Your task to perform on an android device: Open Google Maps Image 0: 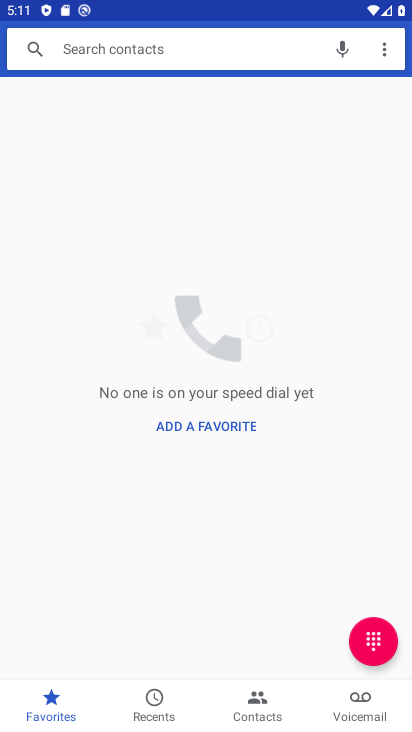
Step 0: press home button
Your task to perform on an android device: Open Google Maps Image 1: 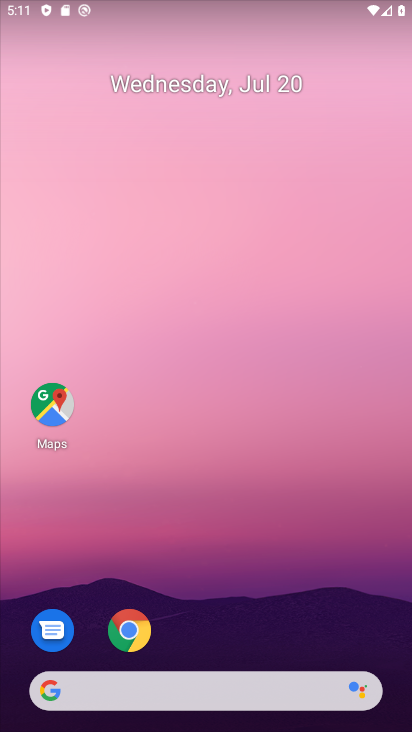
Step 1: drag from (275, 699) to (314, 130)
Your task to perform on an android device: Open Google Maps Image 2: 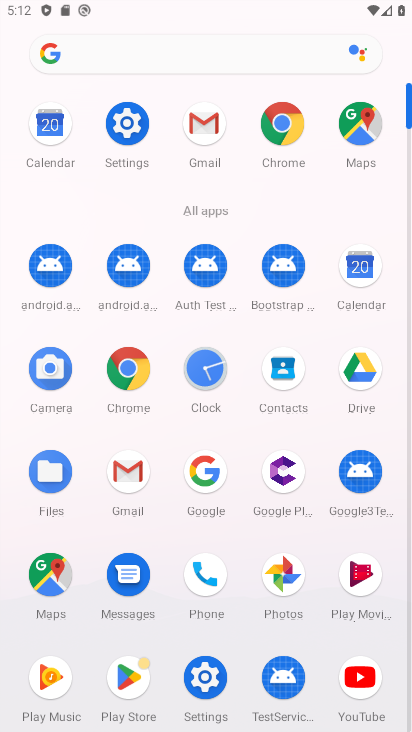
Step 2: click (48, 582)
Your task to perform on an android device: Open Google Maps Image 3: 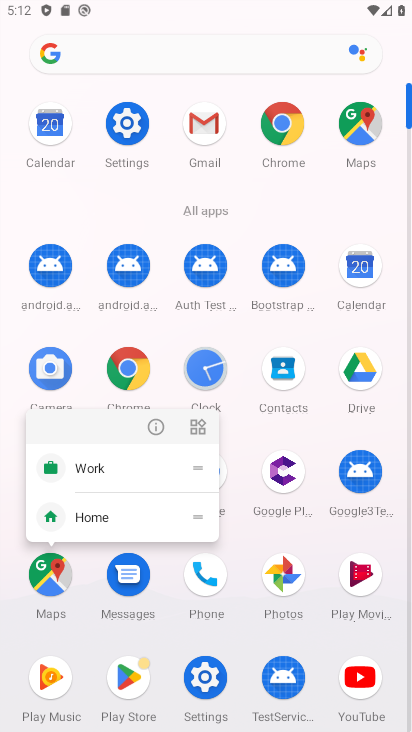
Step 3: click (61, 595)
Your task to perform on an android device: Open Google Maps Image 4: 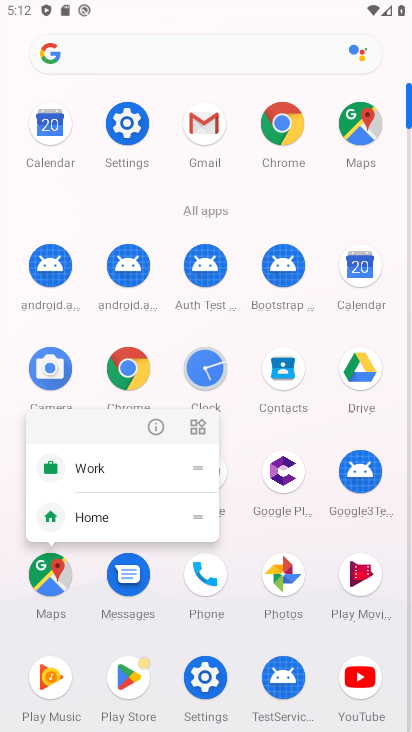
Step 4: click (60, 596)
Your task to perform on an android device: Open Google Maps Image 5: 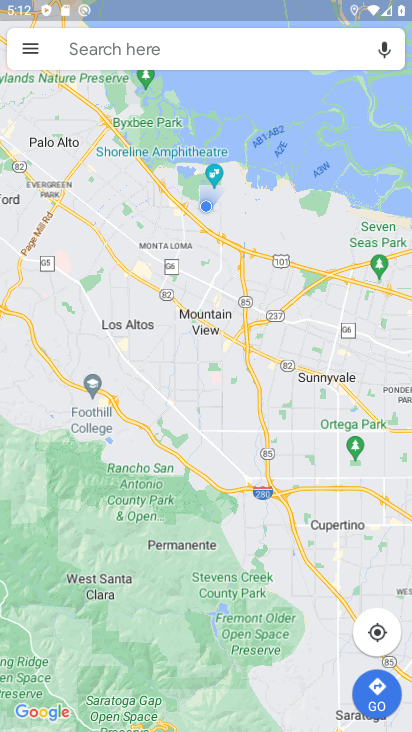
Step 5: task complete